Your task to perform on an android device: toggle show notifications on the lock screen Image 0: 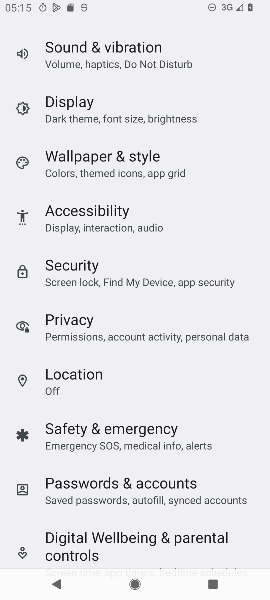
Step 0: press home button
Your task to perform on an android device: toggle show notifications on the lock screen Image 1: 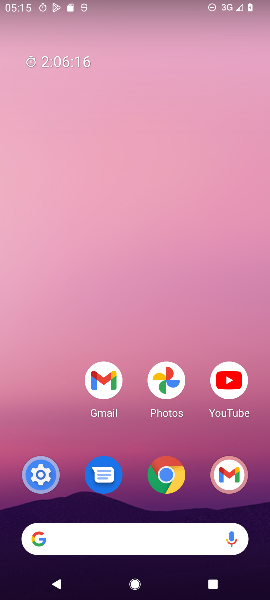
Step 1: drag from (49, 433) to (48, 232)
Your task to perform on an android device: toggle show notifications on the lock screen Image 2: 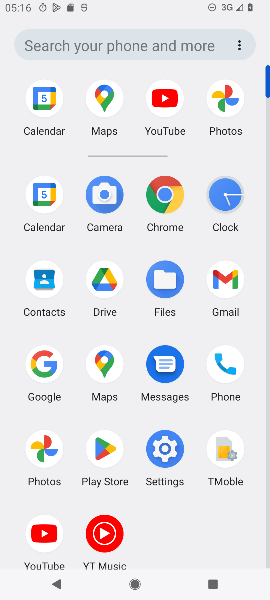
Step 2: click (158, 458)
Your task to perform on an android device: toggle show notifications on the lock screen Image 3: 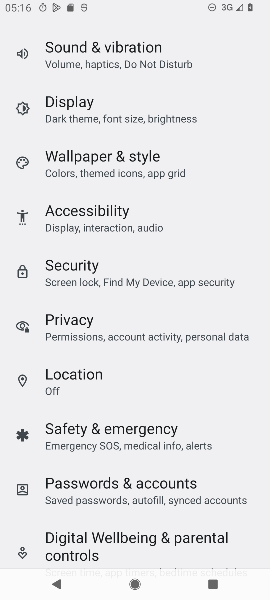
Step 3: drag from (238, 214) to (249, 296)
Your task to perform on an android device: toggle show notifications on the lock screen Image 4: 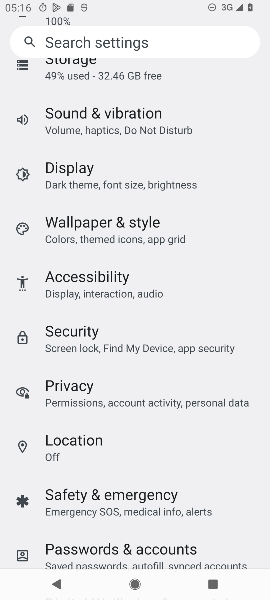
Step 4: drag from (232, 137) to (236, 256)
Your task to perform on an android device: toggle show notifications on the lock screen Image 5: 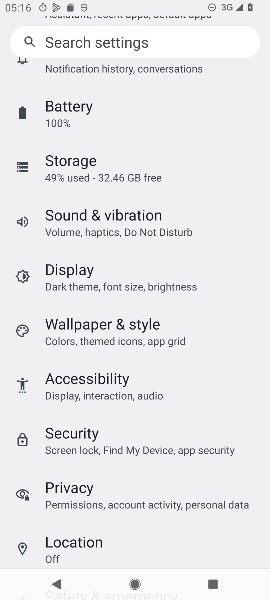
Step 5: drag from (221, 122) to (226, 244)
Your task to perform on an android device: toggle show notifications on the lock screen Image 6: 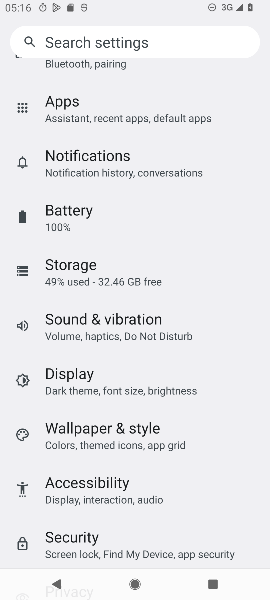
Step 6: drag from (229, 111) to (237, 373)
Your task to perform on an android device: toggle show notifications on the lock screen Image 7: 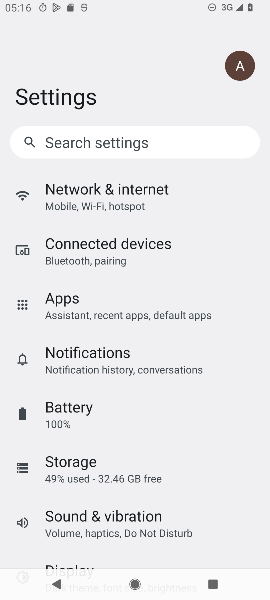
Step 7: click (167, 362)
Your task to perform on an android device: toggle show notifications on the lock screen Image 8: 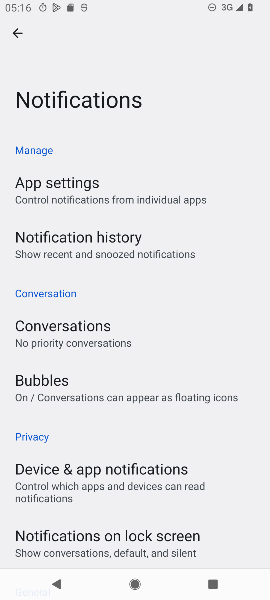
Step 8: drag from (212, 426) to (221, 339)
Your task to perform on an android device: toggle show notifications on the lock screen Image 9: 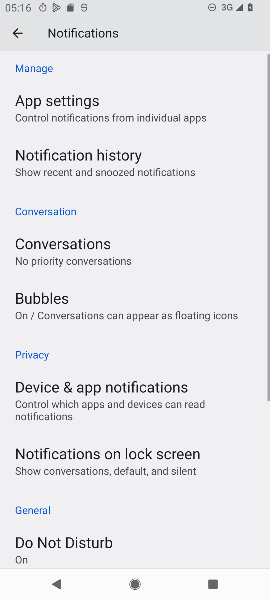
Step 9: drag from (217, 440) to (219, 323)
Your task to perform on an android device: toggle show notifications on the lock screen Image 10: 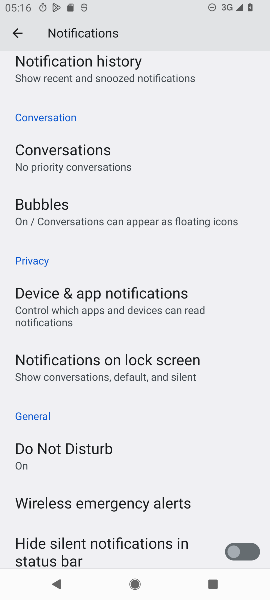
Step 10: drag from (228, 451) to (228, 357)
Your task to perform on an android device: toggle show notifications on the lock screen Image 11: 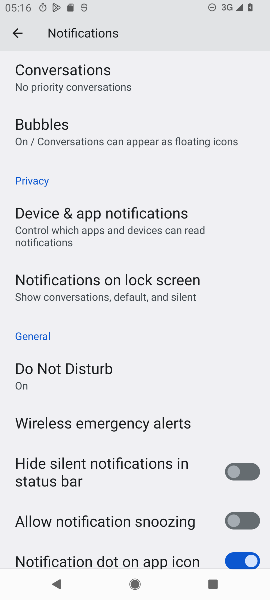
Step 11: click (173, 280)
Your task to perform on an android device: toggle show notifications on the lock screen Image 12: 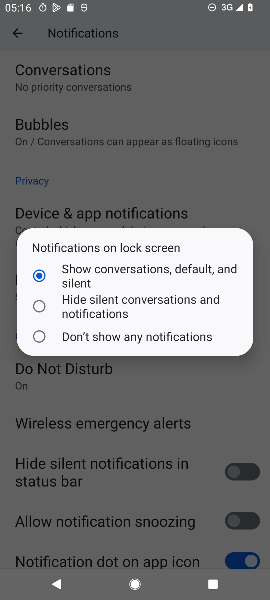
Step 12: click (84, 307)
Your task to perform on an android device: toggle show notifications on the lock screen Image 13: 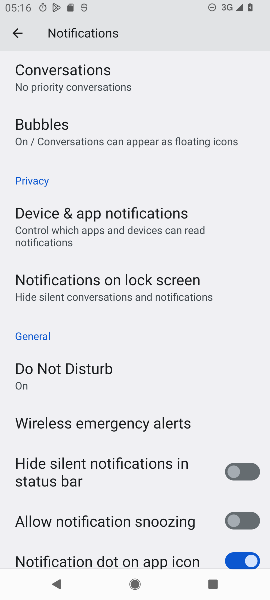
Step 13: task complete